Your task to perform on an android device: turn pop-ups on in chrome Image 0: 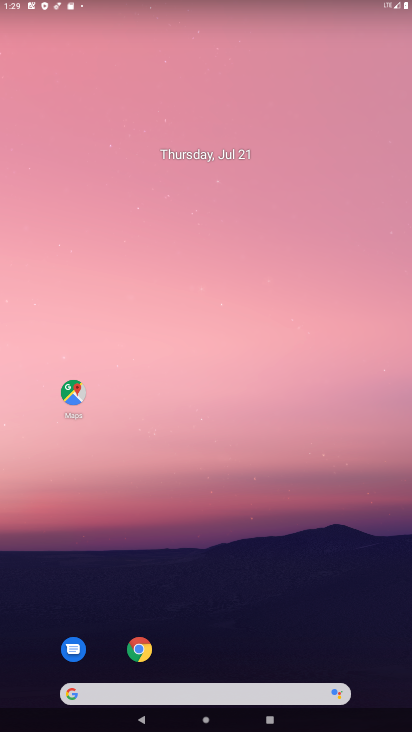
Step 0: click (141, 651)
Your task to perform on an android device: turn pop-ups on in chrome Image 1: 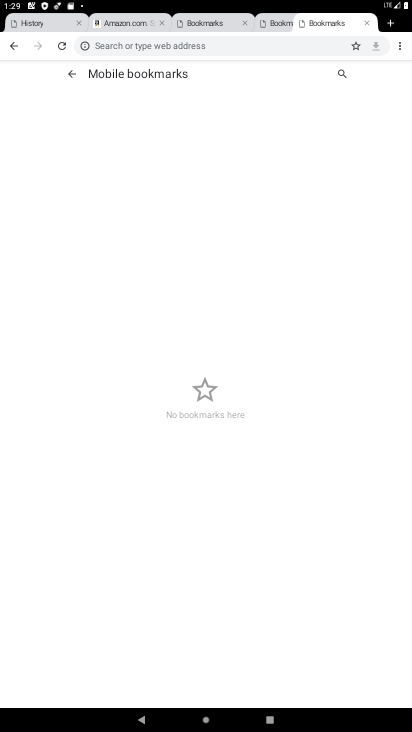
Step 1: click (400, 45)
Your task to perform on an android device: turn pop-ups on in chrome Image 2: 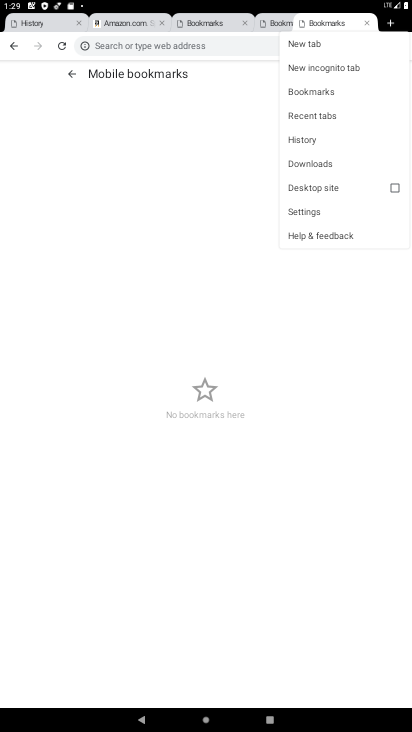
Step 2: click (305, 209)
Your task to perform on an android device: turn pop-ups on in chrome Image 3: 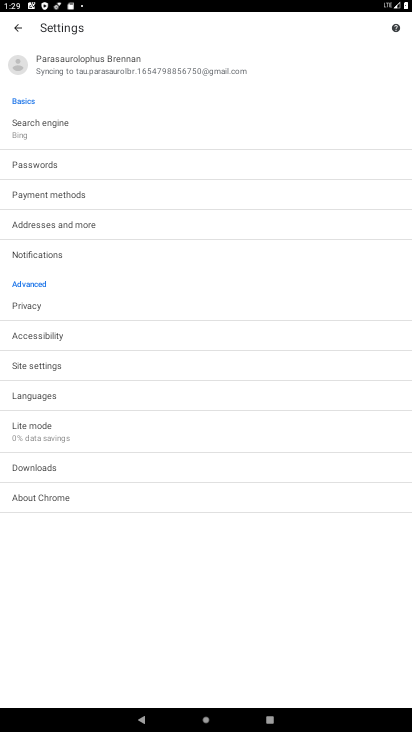
Step 3: click (45, 366)
Your task to perform on an android device: turn pop-ups on in chrome Image 4: 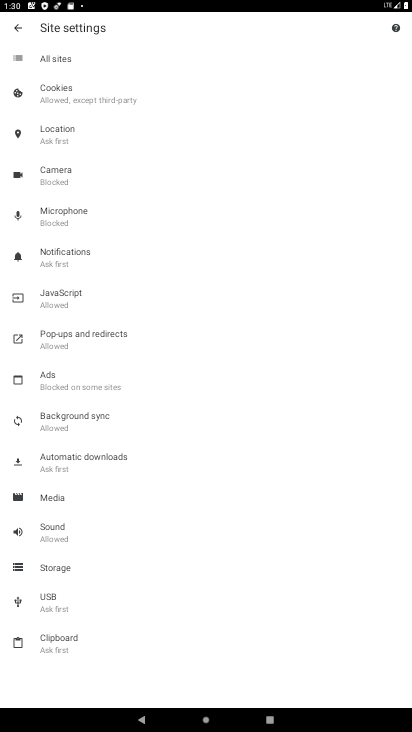
Step 4: click (66, 331)
Your task to perform on an android device: turn pop-ups on in chrome Image 5: 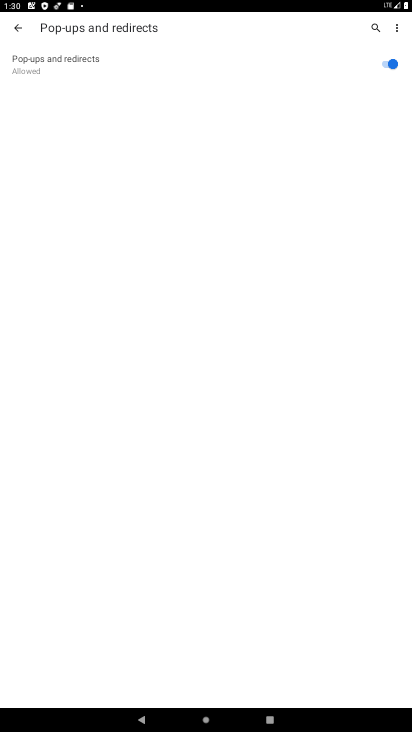
Step 5: task complete